Your task to perform on an android device: check android version Image 0: 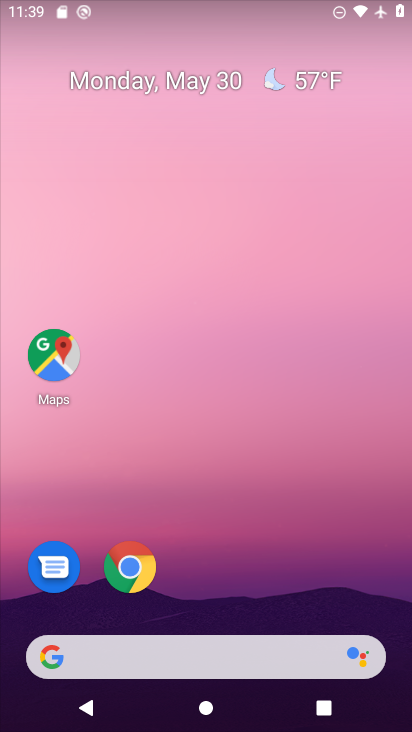
Step 0: drag from (205, 564) to (208, 153)
Your task to perform on an android device: check android version Image 1: 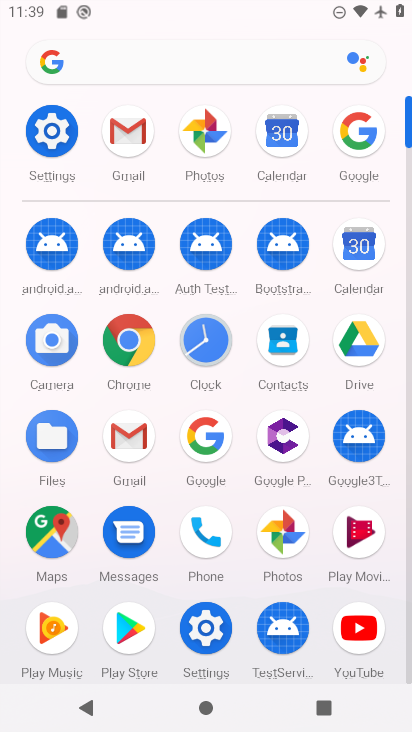
Step 1: click (51, 128)
Your task to perform on an android device: check android version Image 2: 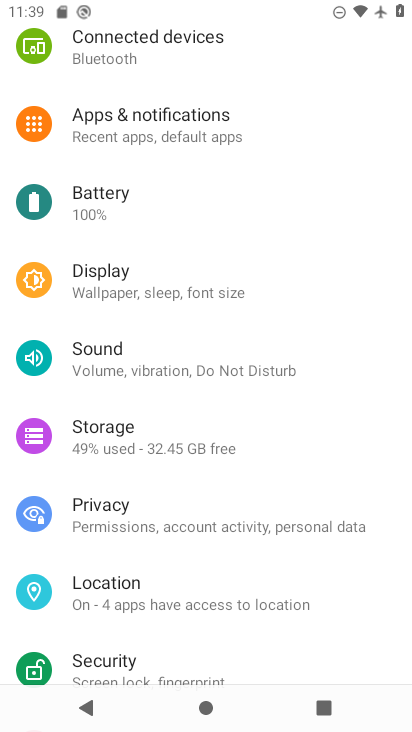
Step 2: drag from (195, 623) to (192, 209)
Your task to perform on an android device: check android version Image 3: 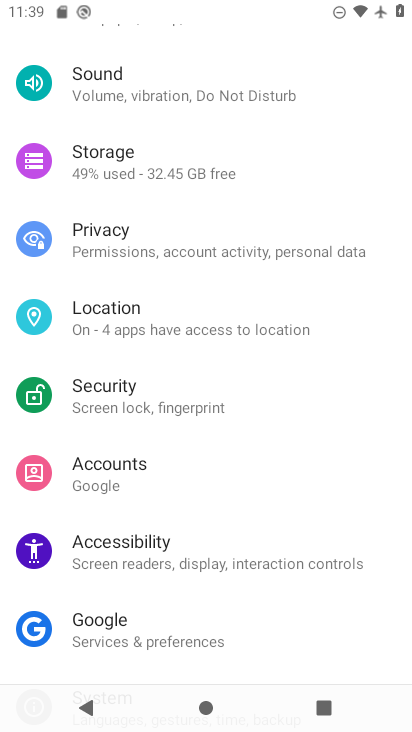
Step 3: drag from (161, 571) to (175, 215)
Your task to perform on an android device: check android version Image 4: 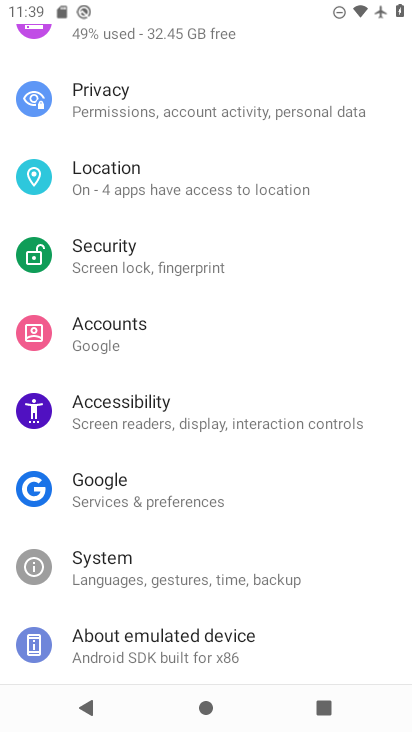
Step 4: click (140, 638)
Your task to perform on an android device: check android version Image 5: 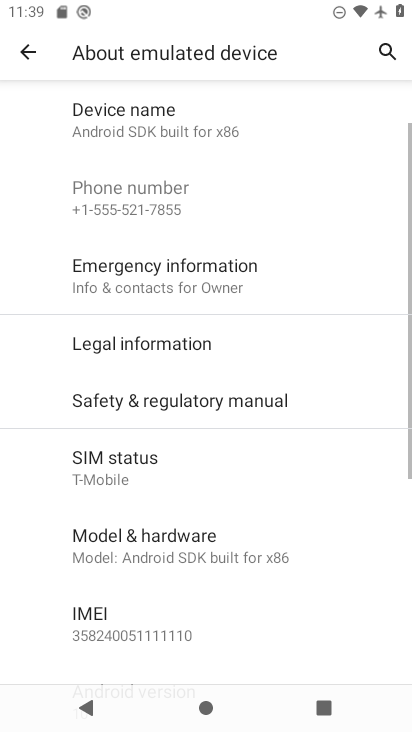
Step 5: drag from (224, 522) to (223, 156)
Your task to perform on an android device: check android version Image 6: 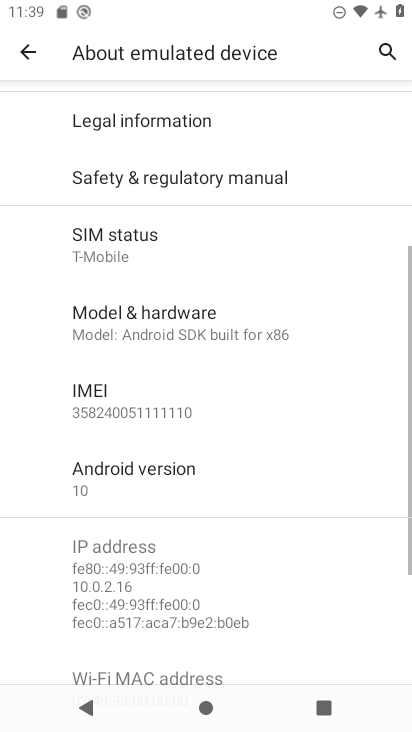
Step 6: click (158, 457)
Your task to perform on an android device: check android version Image 7: 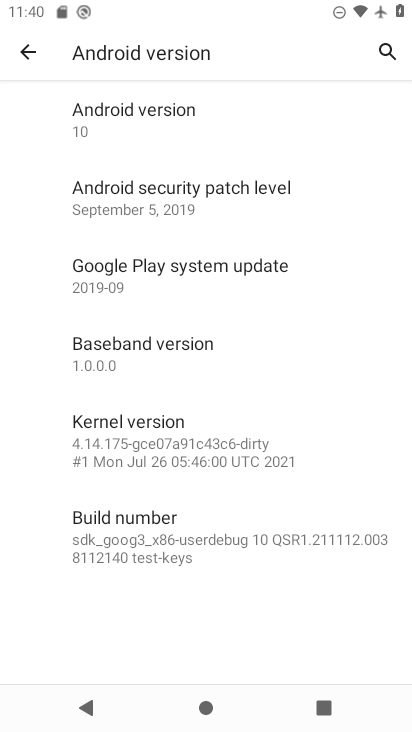
Step 7: click (104, 134)
Your task to perform on an android device: check android version Image 8: 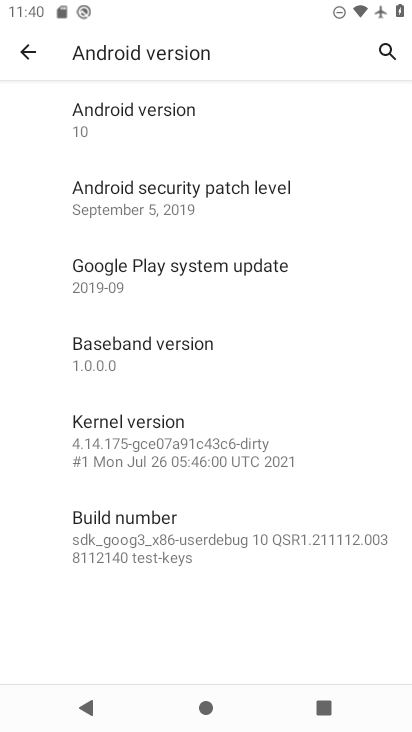
Step 8: click (171, 118)
Your task to perform on an android device: check android version Image 9: 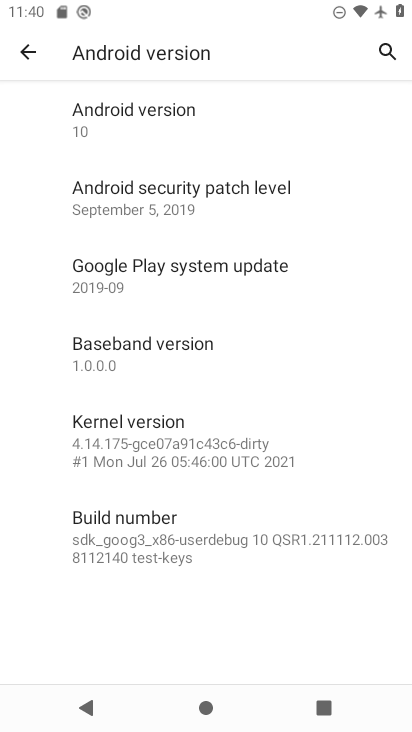
Step 9: click (162, 118)
Your task to perform on an android device: check android version Image 10: 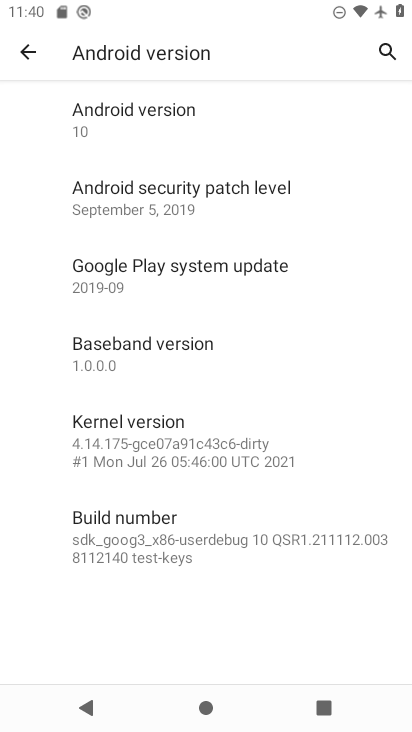
Step 10: task complete